Your task to perform on an android device: Search for vegetarian restaurants on Maps Image 0: 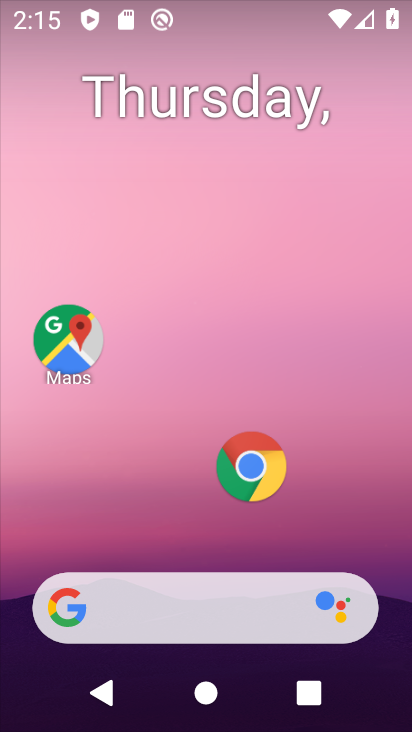
Step 0: click (77, 350)
Your task to perform on an android device: Search for vegetarian restaurants on Maps Image 1: 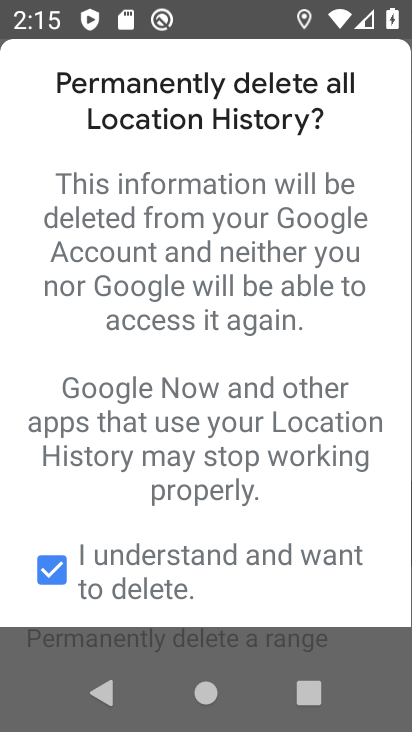
Step 1: click (331, 666)
Your task to perform on an android device: Search for vegetarian restaurants on Maps Image 2: 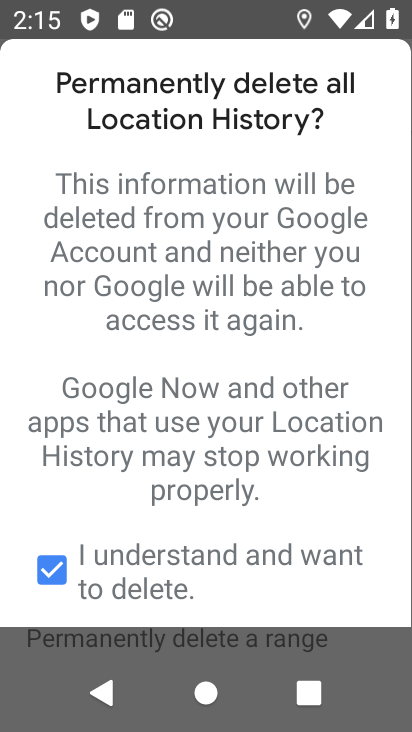
Step 2: press back button
Your task to perform on an android device: Search for vegetarian restaurants on Maps Image 3: 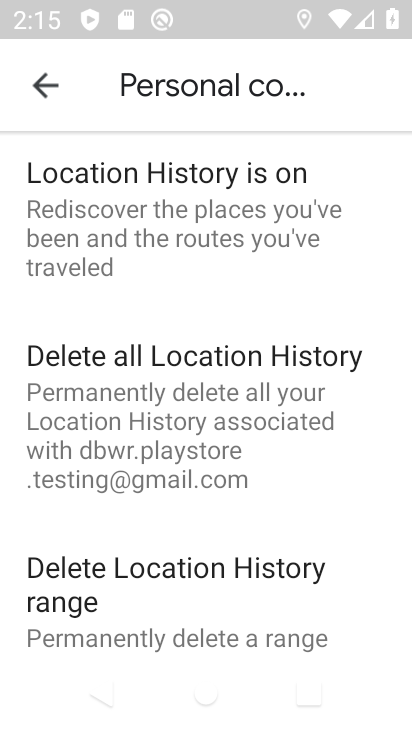
Step 3: press back button
Your task to perform on an android device: Search for vegetarian restaurants on Maps Image 4: 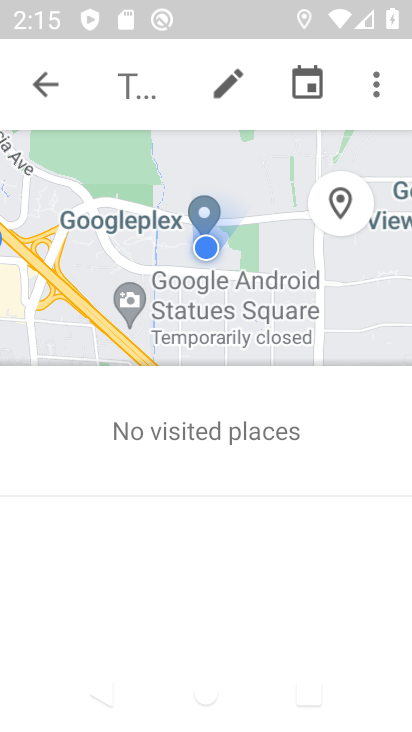
Step 4: click (35, 75)
Your task to perform on an android device: Search for vegetarian restaurants on Maps Image 5: 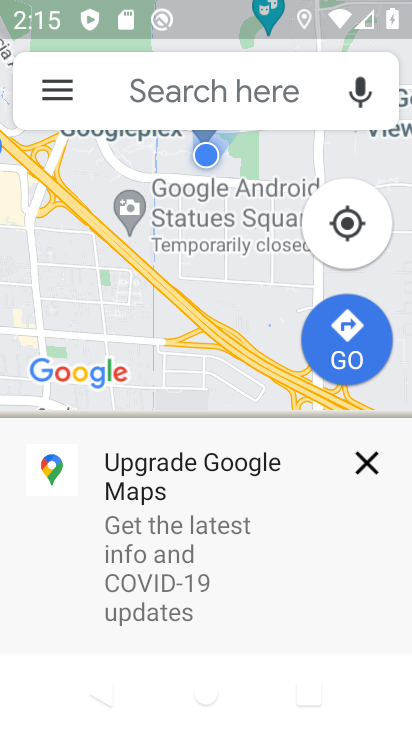
Step 5: click (187, 83)
Your task to perform on an android device: Search for vegetarian restaurants on Maps Image 6: 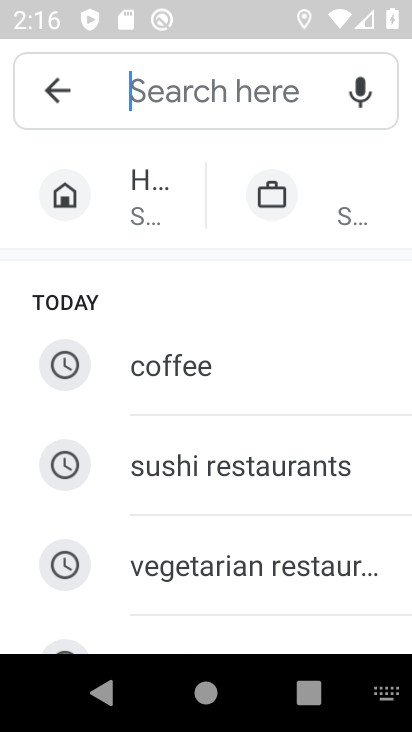
Step 6: type "vegetarian restaurants"
Your task to perform on an android device: Search for vegetarian restaurants on Maps Image 7: 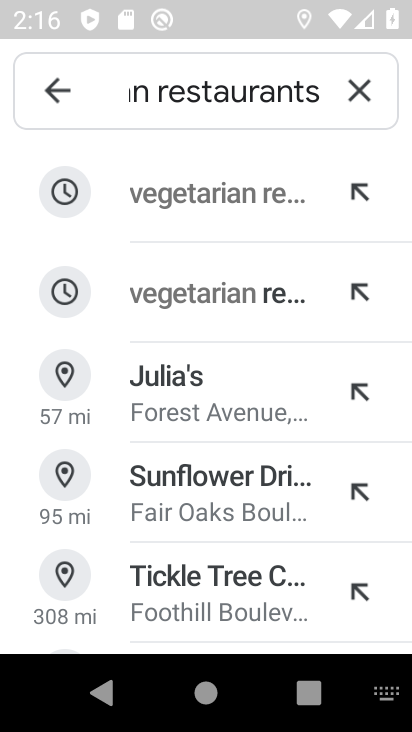
Step 7: click (225, 195)
Your task to perform on an android device: Search for vegetarian restaurants on Maps Image 8: 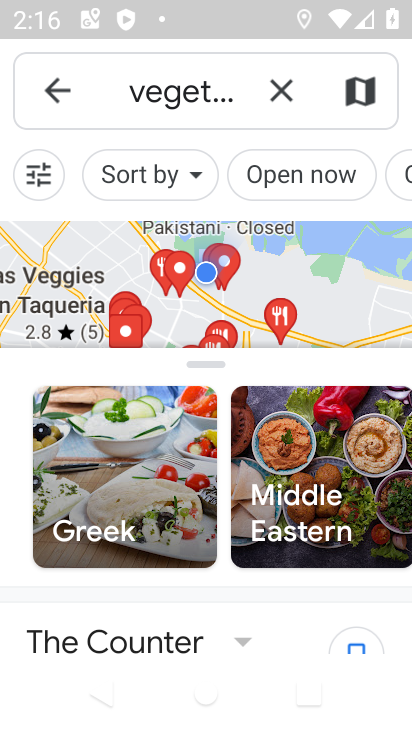
Step 8: task complete